Your task to perform on an android device: Turn off the flashlight Image 0: 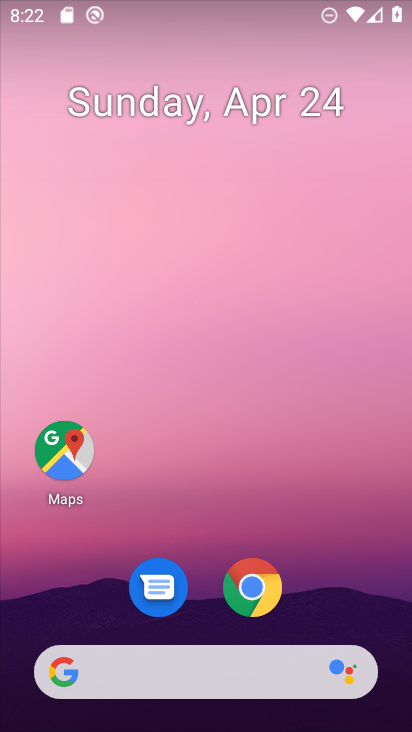
Step 0: drag from (354, 613) to (342, 176)
Your task to perform on an android device: Turn off the flashlight Image 1: 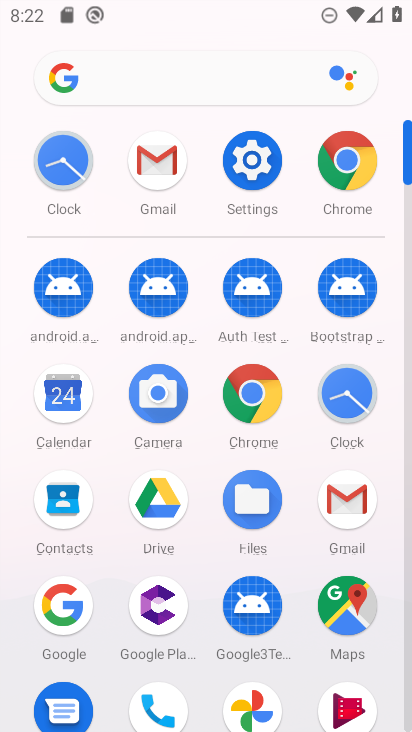
Step 1: click (262, 168)
Your task to perform on an android device: Turn off the flashlight Image 2: 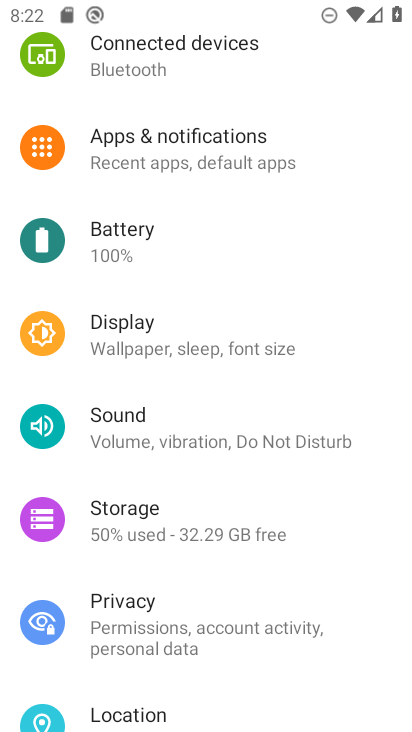
Step 2: drag from (302, 148) to (351, 545)
Your task to perform on an android device: Turn off the flashlight Image 3: 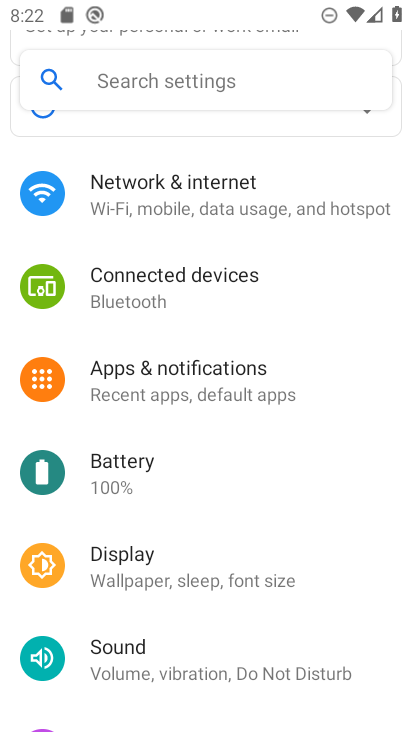
Step 3: click (278, 88)
Your task to perform on an android device: Turn off the flashlight Image 4: 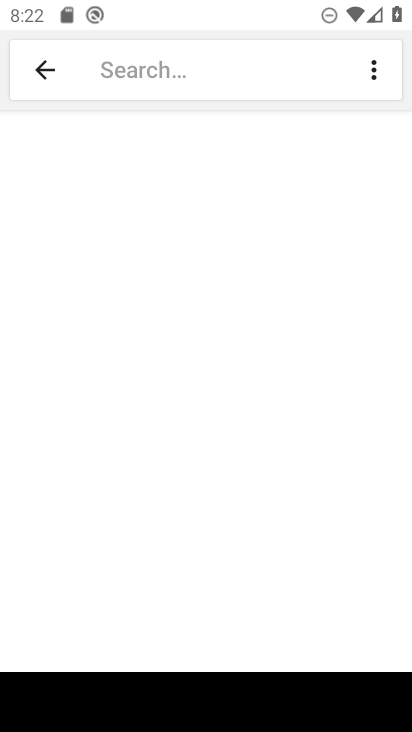
Step 4: type "flashlight"
Your task to perform on an android device: Turn off the flashlight Image 5: 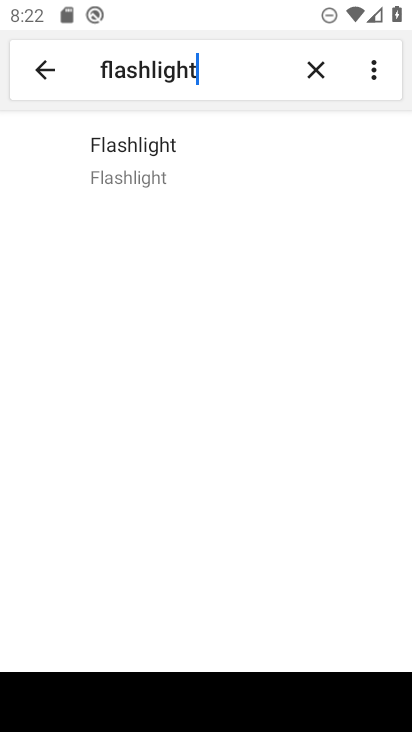
Step 5: click (147, 158)
Your task to perform on an android device: Turn off the flashlight Image 6: 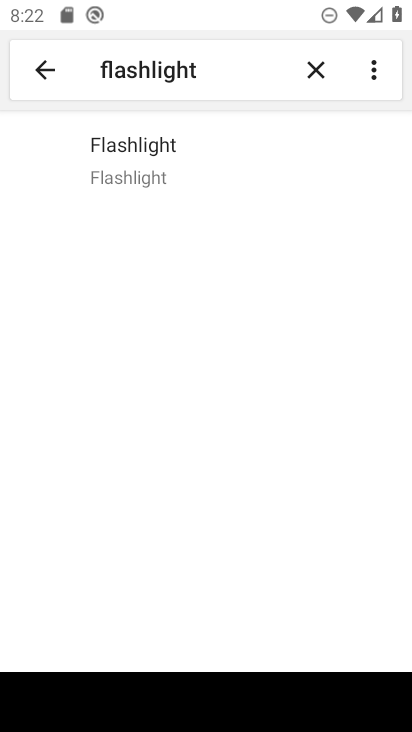
Step 6: task complete